Your task to perform on an android device: Go to battery settings Image 0: 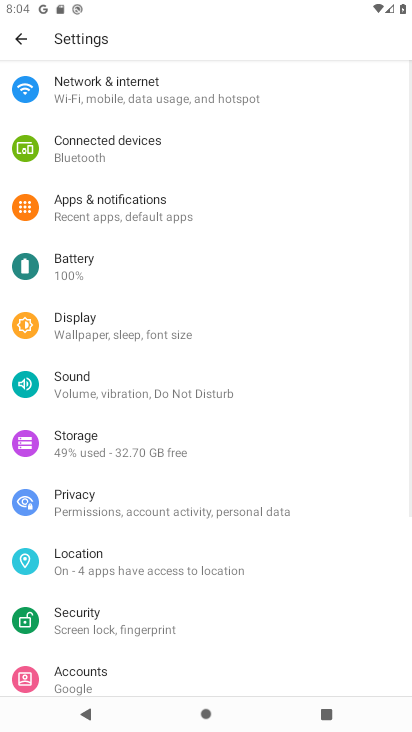
Step 0: click (81, 278)
Your task to perform on an android device: Go to battery settings Image 1: 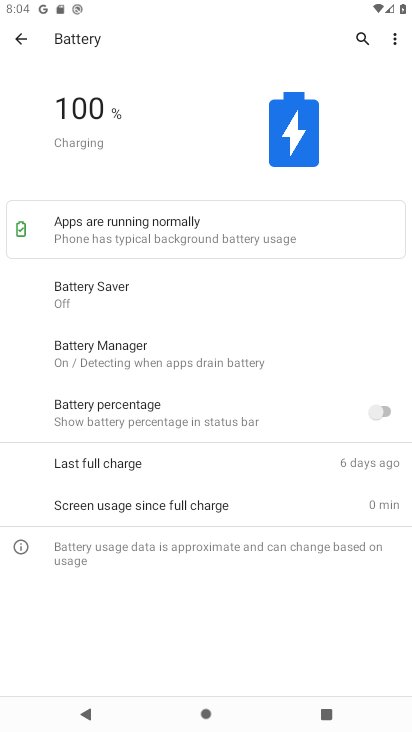
Step 1: task complete